Your task to perform on an android device: Open Wikipedia Image 0: 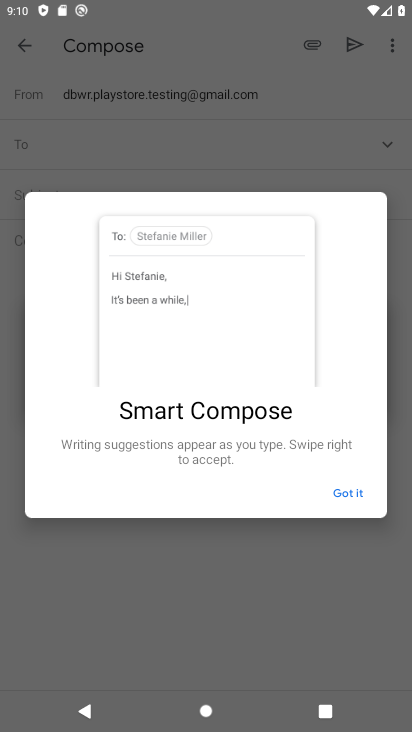
Step 0: press home button
Your task to perform on an android device: Open Wikipedia Image 1: 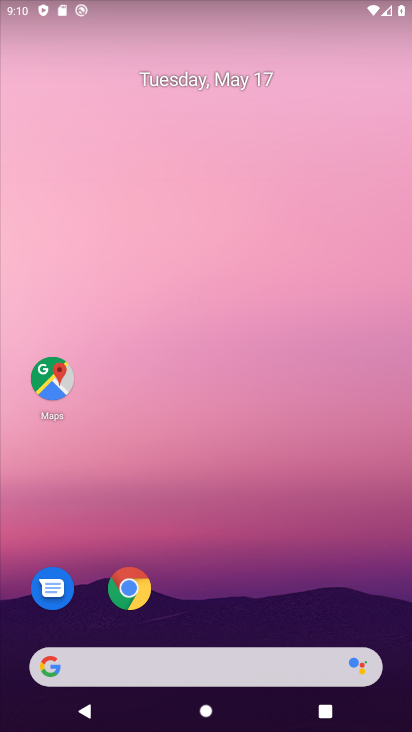
Step 1: click (135, 593)
Your task to perform on an android device: Open Wikipedia Image 2: 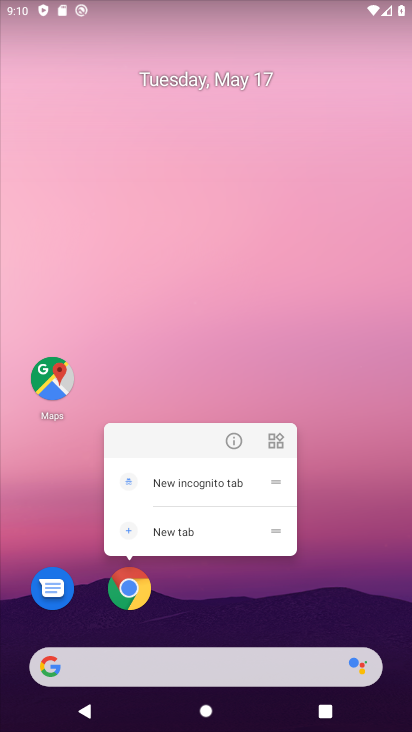
Step 2: click (123, 581)
Your task to perform on an android device: Open Wikipedia Image 3: 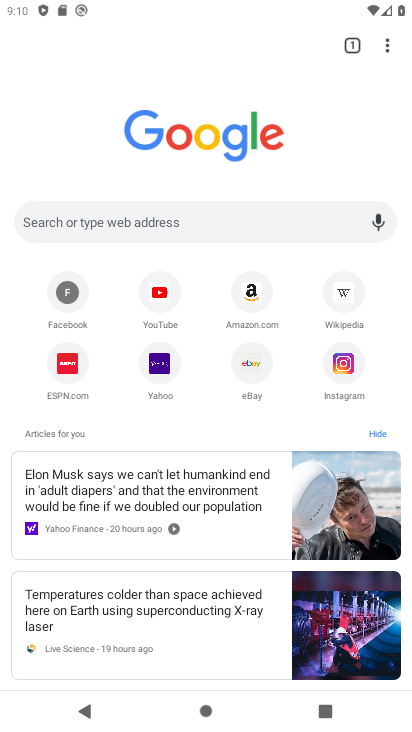
Step 3: click (338, 286)
Your task to perform on an android device: Open Wikipedia Image 4: 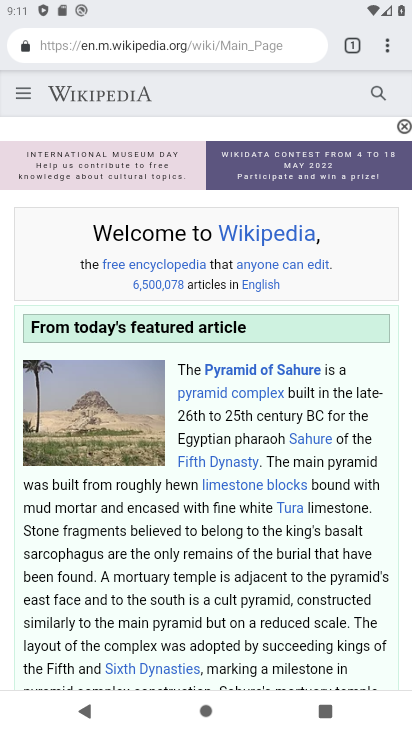
Step 4: task complete